Your task to perform on an android device: create a new album in the google photos Image 0: 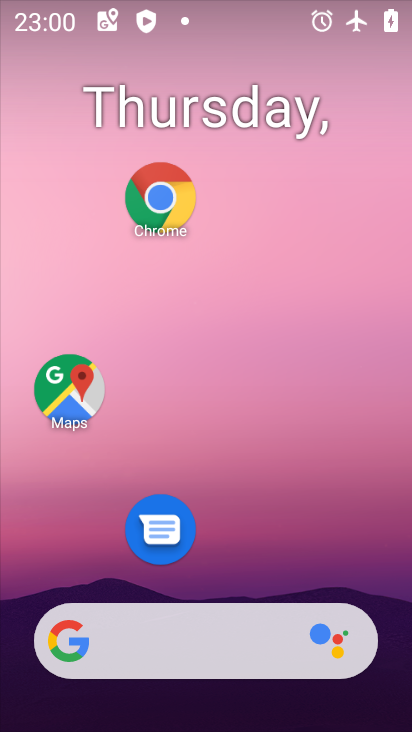
Step 0: drag from (272, 500) to (203, 13)
Your task to perform on an android device: create a new album in the google photos Image 1: 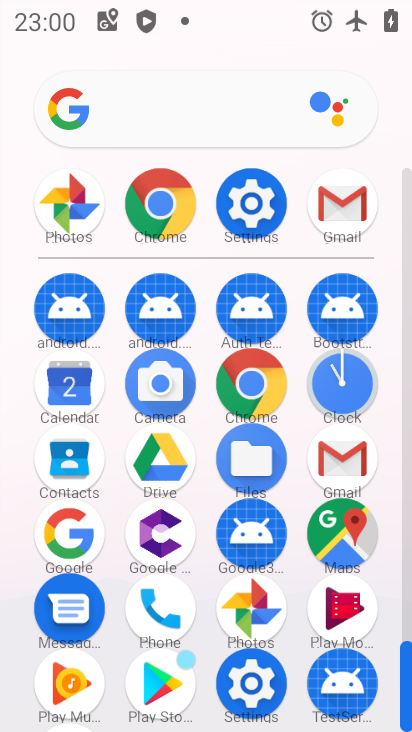
Step 1: click (257, 610)
Your task to perform on an android device: create a new album in the google photos Image 2: 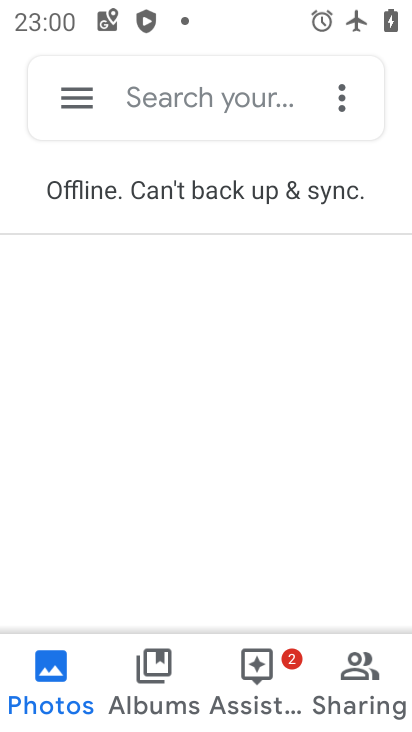
Step 2: click (340, 93)
Your task to perform on an android device: create a new album in the google photos Image 3: 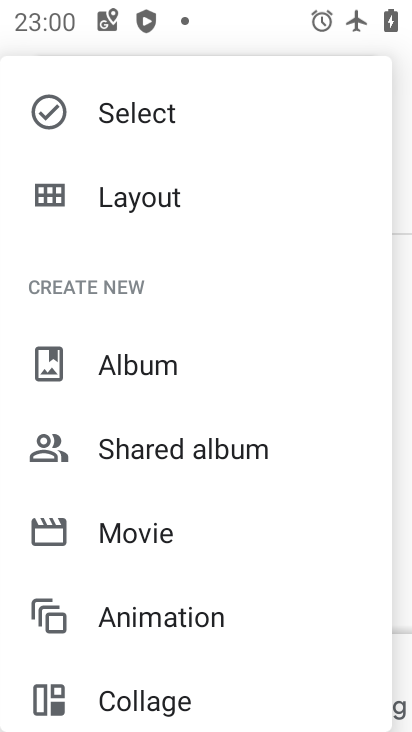
Step 3: click (151, 366)
Your task to perform on an android device: create a new album in the google photos Image 4: 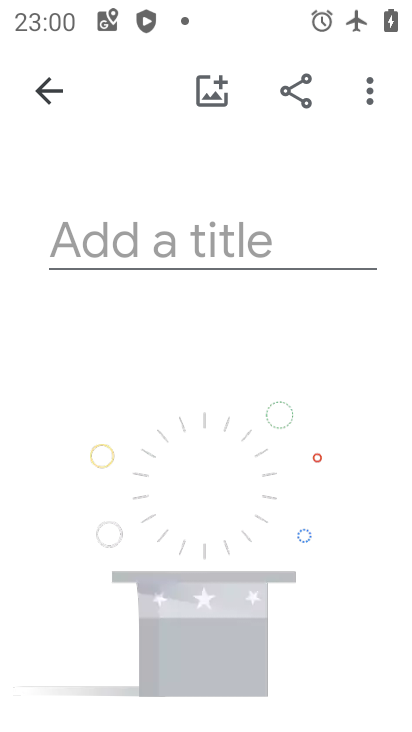
Step 4: click (157, 241)
Your task to perform on an android device: create a new album in the google photos Image 5: 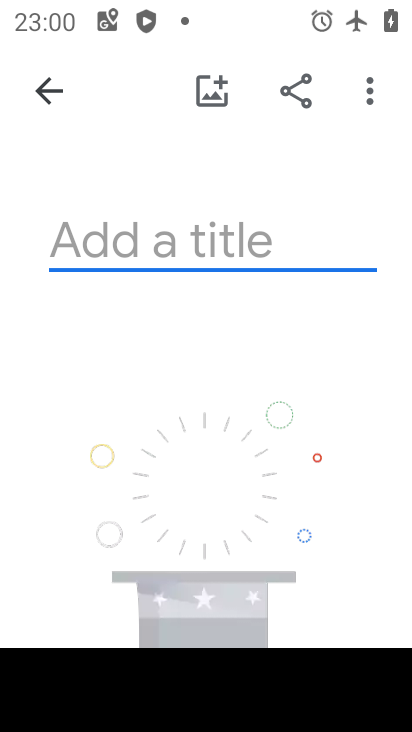
Step 5: type "zxcvbnm"
Your task to perform on an android device: create a new album in the google photos Image 6: 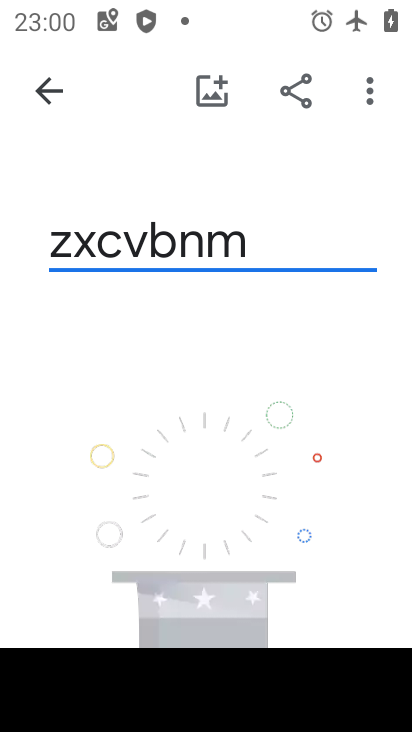
Step 6: task complete